Your task to perform on an android device: Clear all items from cart on ebay.com. Add "razer huntsman" to the cart on ebay.com Image 0: 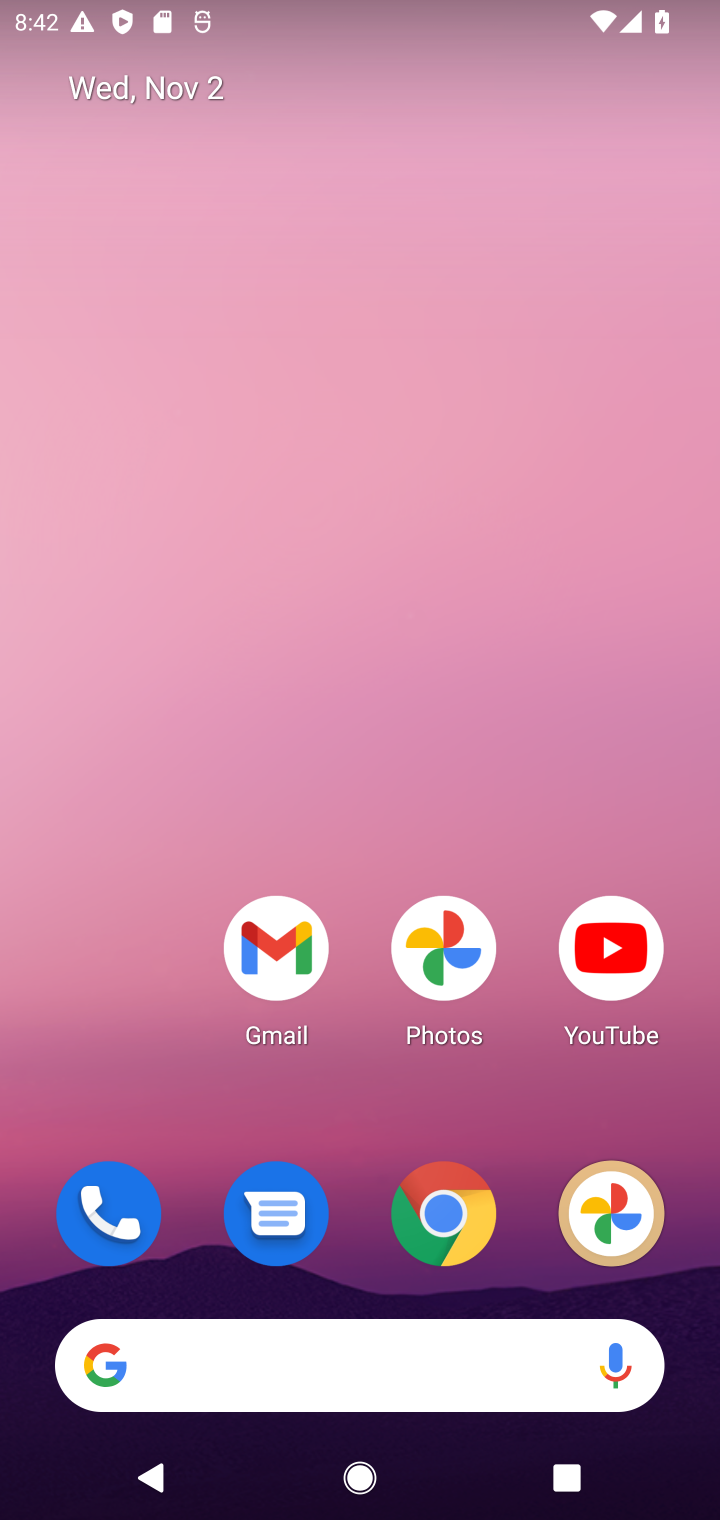
Step 0: click (441, 1218)
Your task to perform on an android device: Clear all items from cart on ebay.com. Add "razer huntsman" to the cart on ebay.com Image 1: 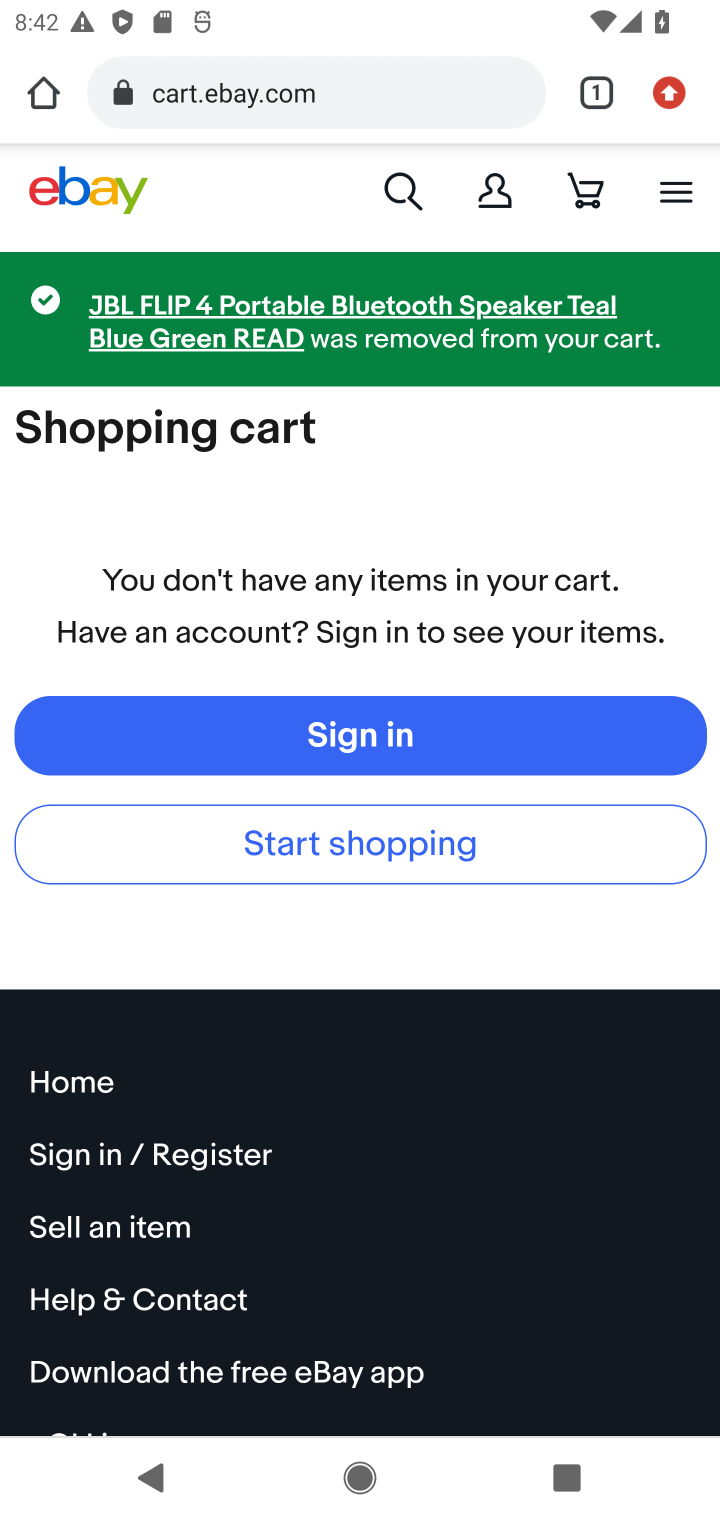
Step 1: press back button
Your task to perform on an android device: Clear all items from cart on ebay.com. Add "razer huntsman" to the cart on ebay.com Image 2: 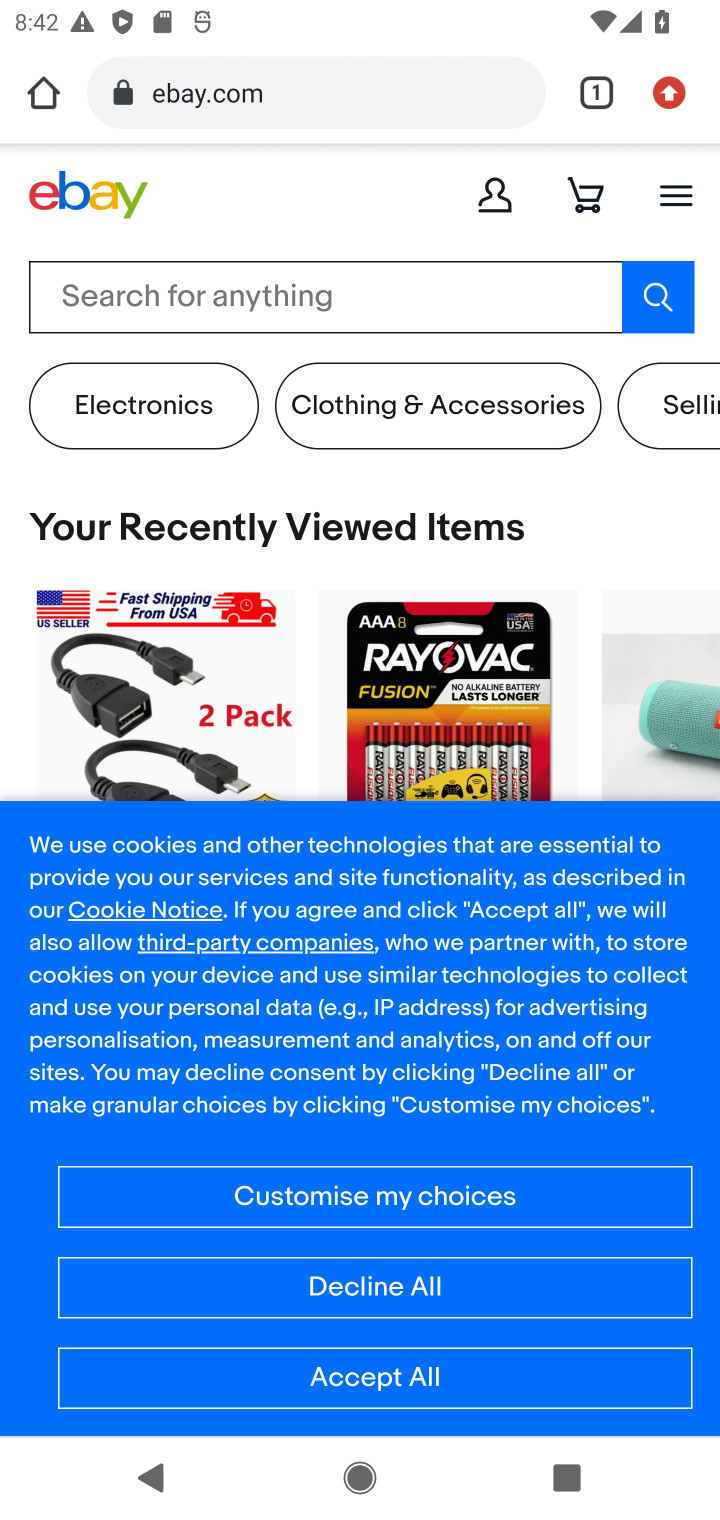
Step 2: click (579, 189)
Your task to perform on an android device: Clear all items from cart on ebay.com. Add "razer huntsman" to the cart on ebay.com Image 3: 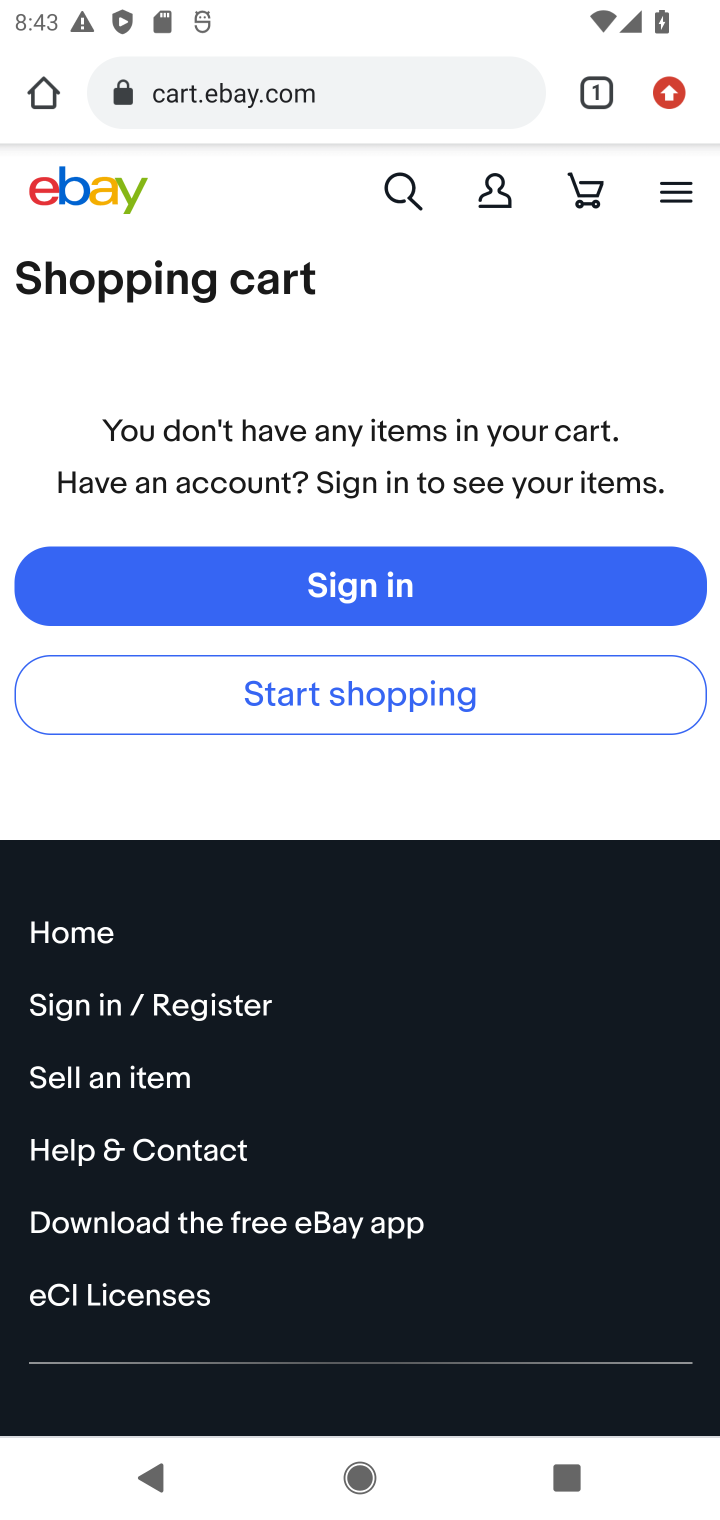
Step 3: click (404, 202)
Your task to perform on an android device: Clear all items from cart on ebay.com. Add "razer huntsman" to the cart on ebay.com Image 4: 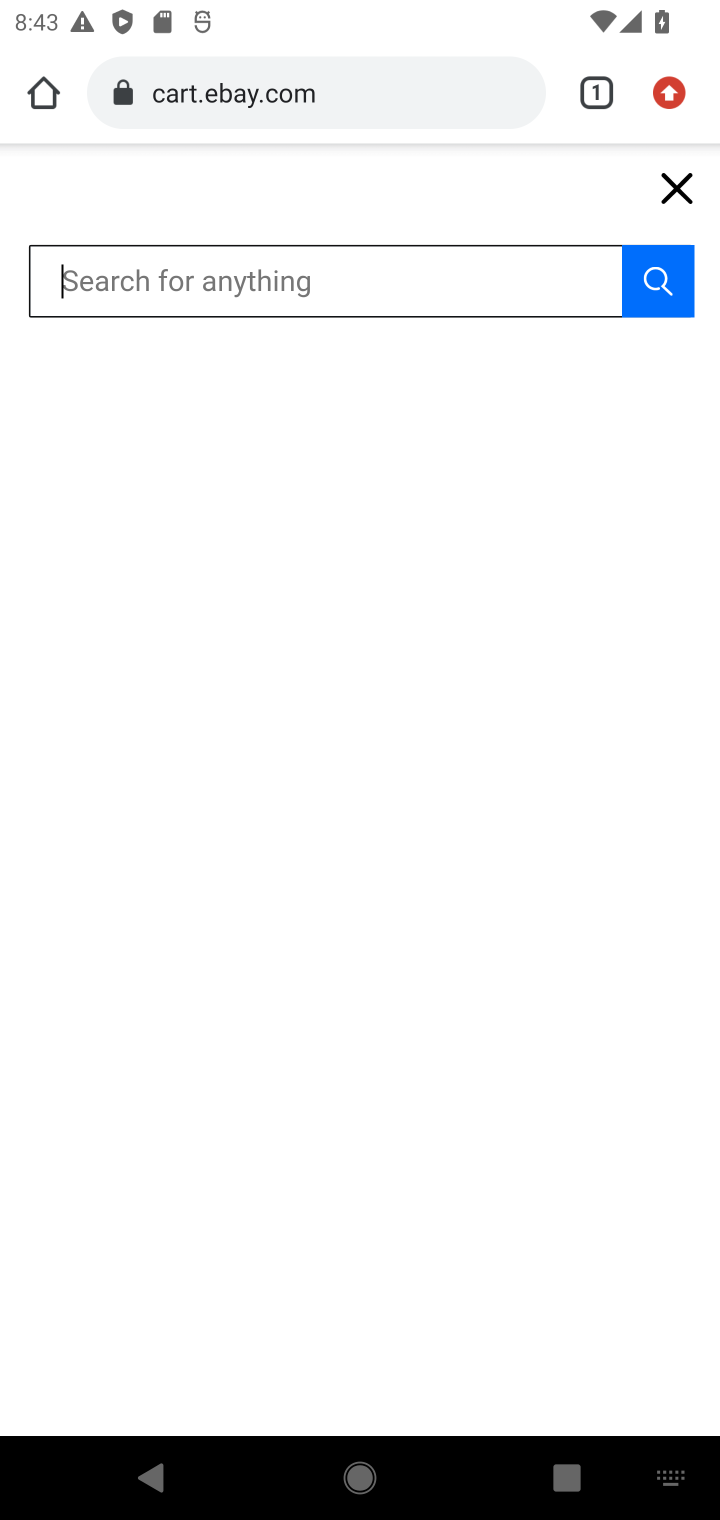
Step 4: type "razer huntsman"
Your task to perform on an android device: Clear all items from cart on ebay.com. Add "razer huntsman" to the cart on ebay.com Image 5: 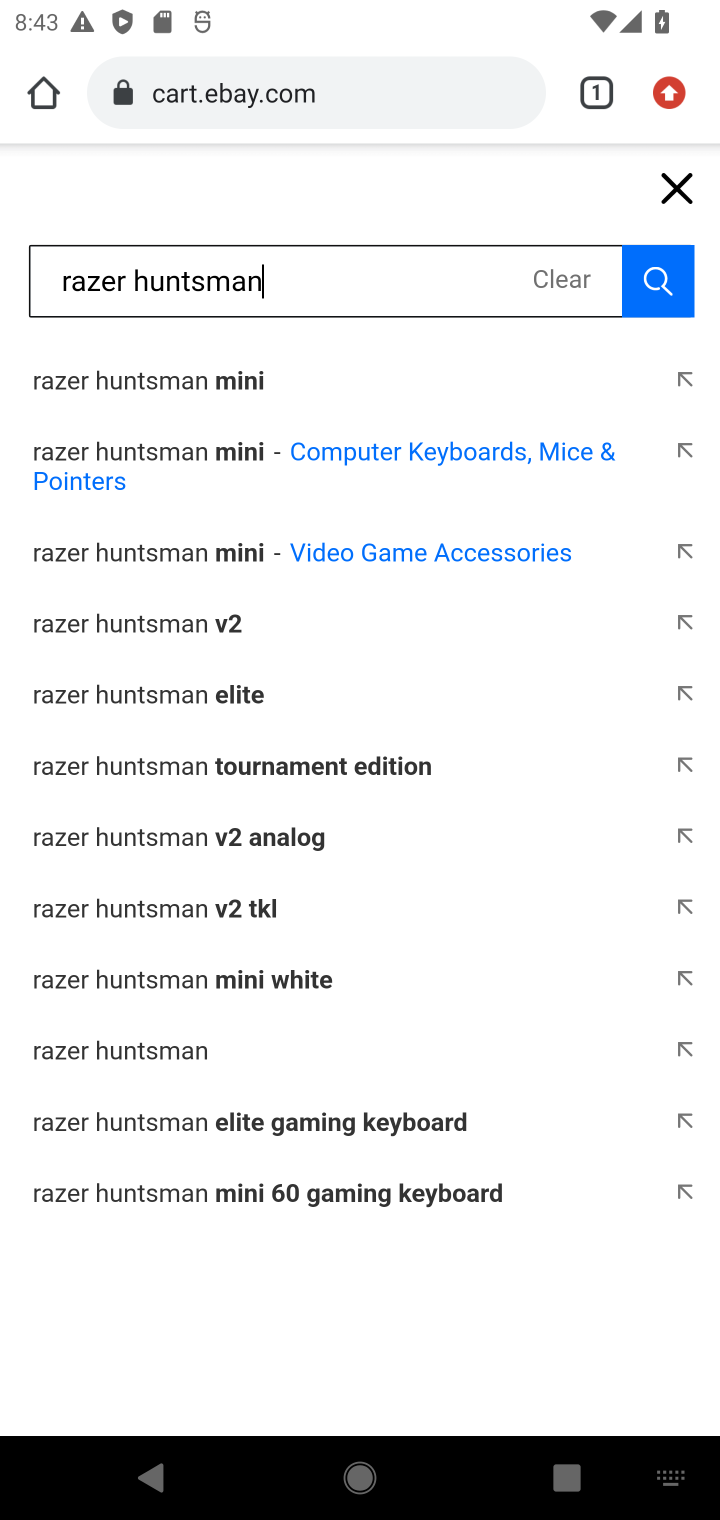
Step 5: click (143, 1058)
Your task to perform on an android device: Clear all items from cart on ebay.com. Add "razer huntsman" to the cart on ebay.com Image 6: 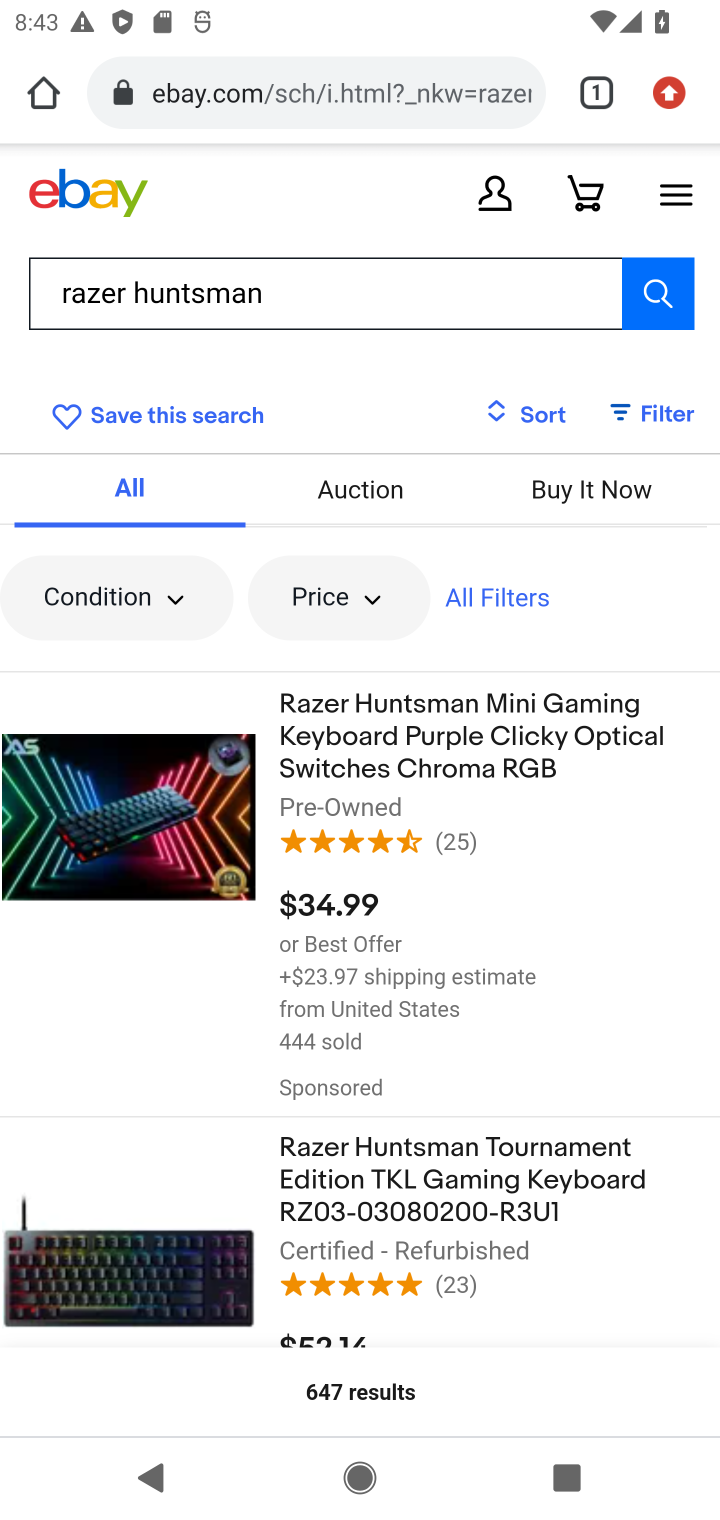
Step 6: click (181, 828)
Your task to perform on an android device: Clear all items from cart on ebay.com. Add "razer huntsman" to the cart on ebay.com Image 7: 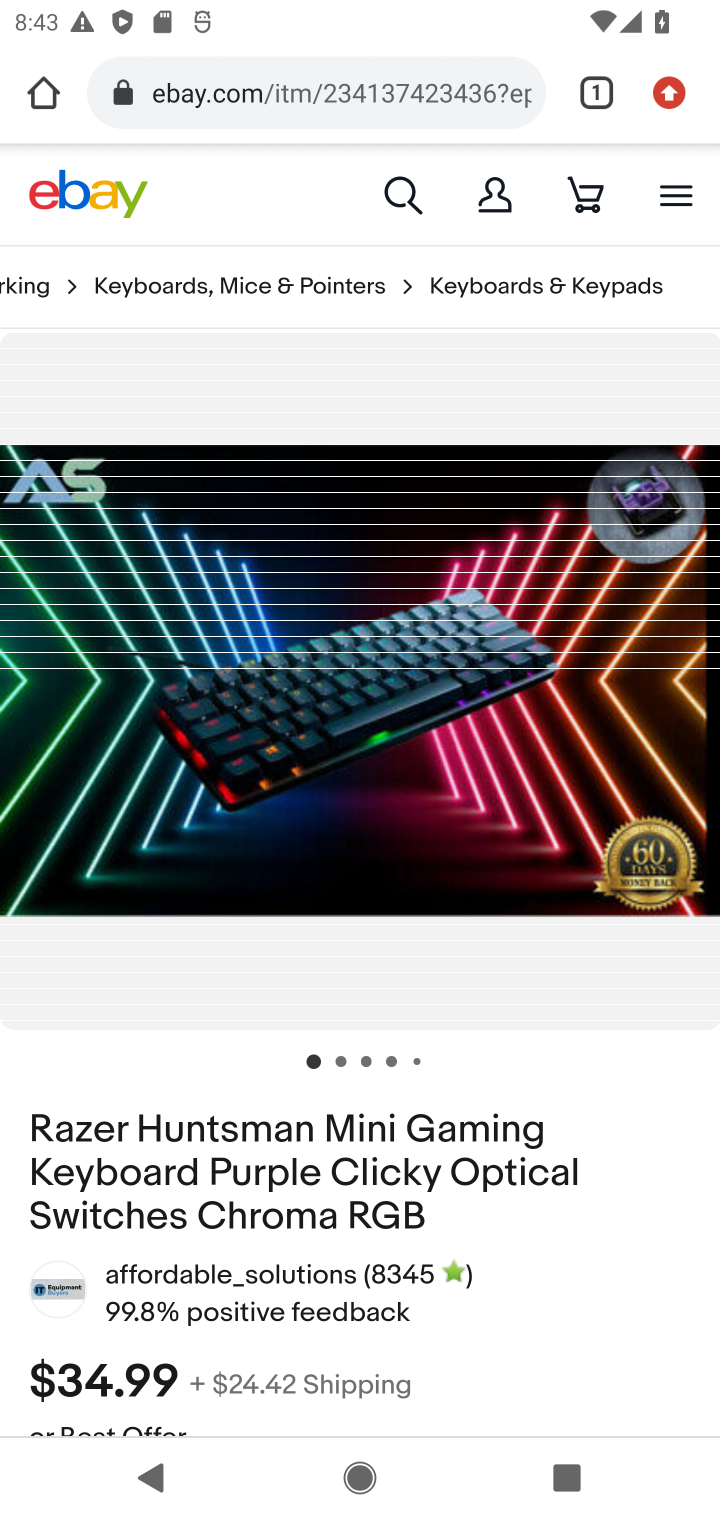
Step 7: drag from (443, 948) to (538, 145)
Your task to perform on an android device: Clear all items from cart on ebay.com. Add "razer huntsman" to the cart on ebay.com Image 8: 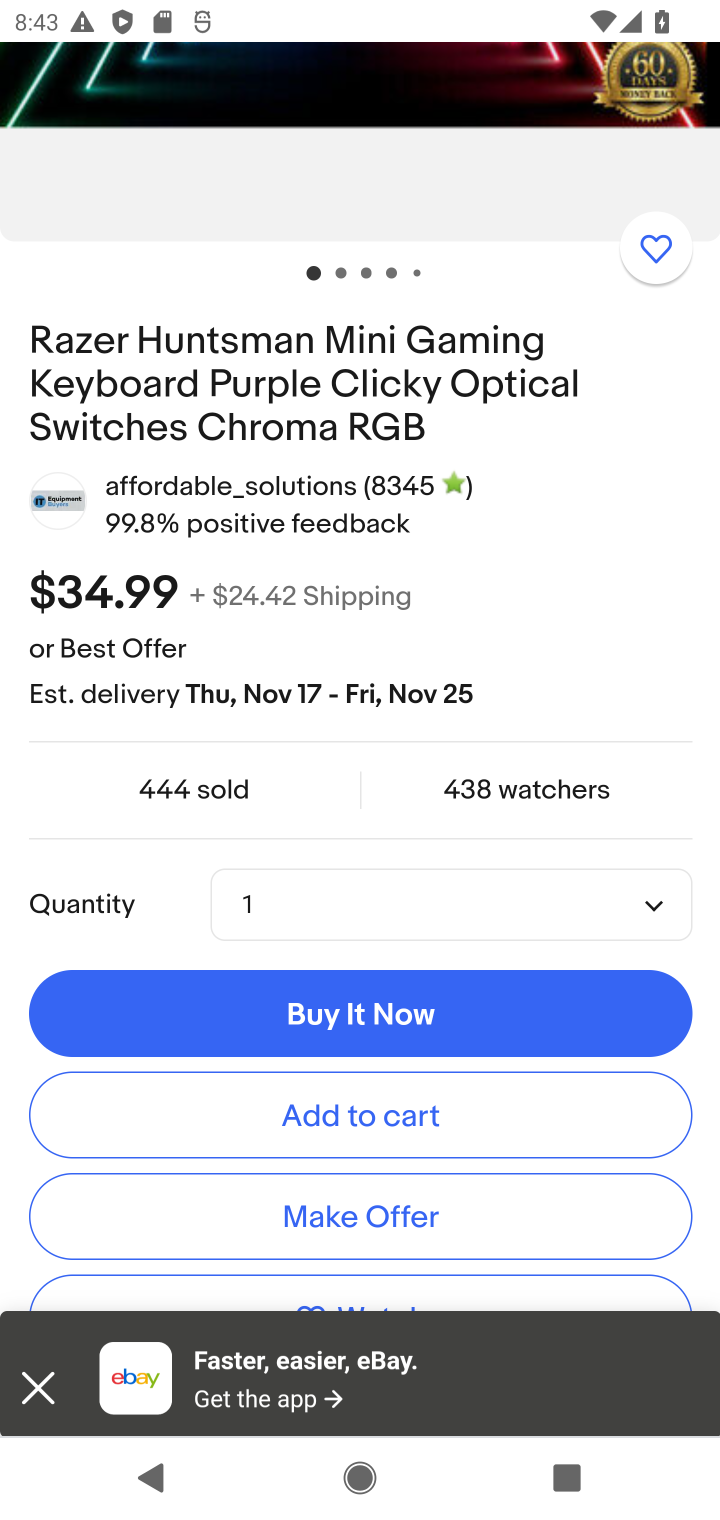
Step 8: click (378, 1119)
Your task to perform on an android device: Clear all items from cart on ebay.com. Add "razer huntsman" to the cart on ebay.com Image 9: 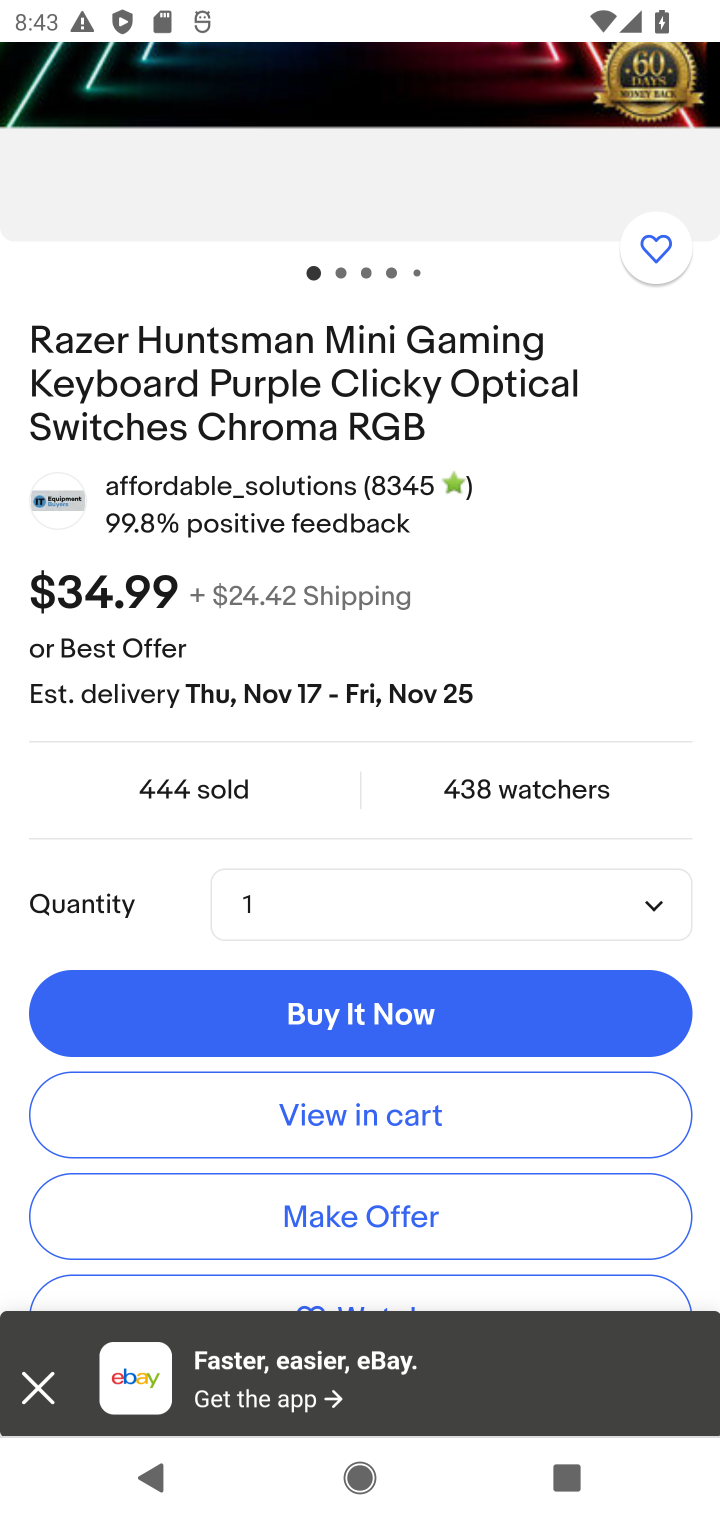
Step 9: task complete